Your task to perform on an android device: read, delete, or share a saved page in the chrome app Image 0: 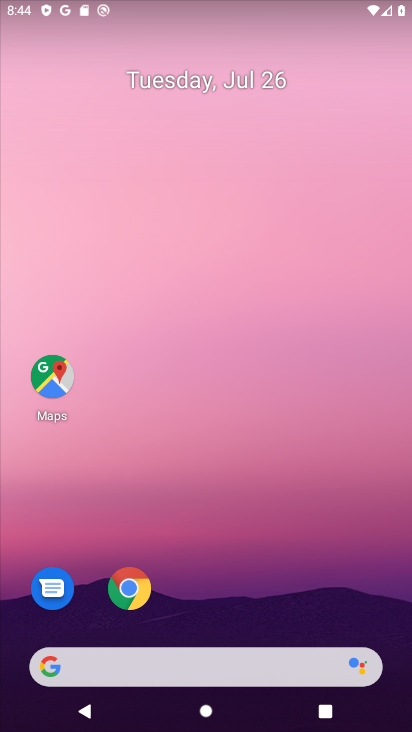
Step 0: click (127, 580)
Your task to perform on an android device: read, delete, or share a saved page in the chrome app Image 1: 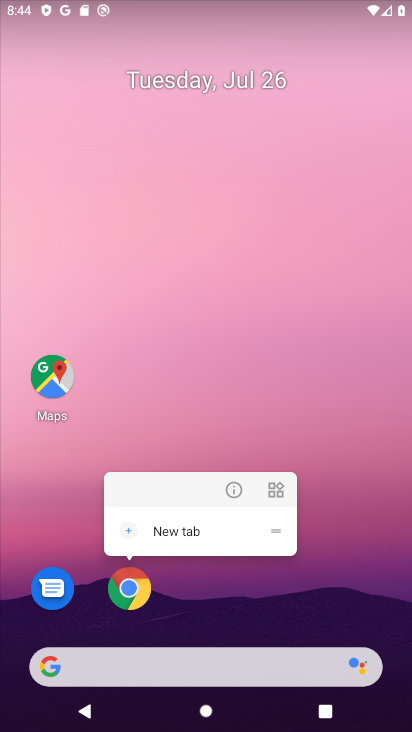
Step 1: click (183, 591)
Your task to perform on an android device: read, delete, or share a saved page in the chrome app Image 2: 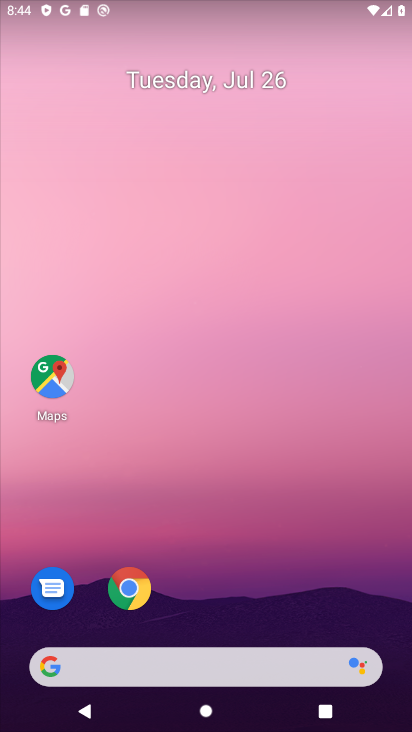
Step 2: click (132, 583)
Your task to perform on an android device: read, delete, or share a saved page in the chrome app Image 3: 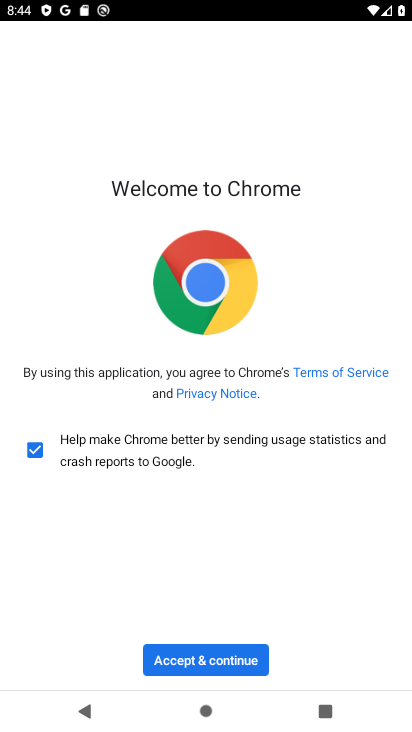
Step 3: click (197, 654)
Your task to perform on an android device: read, delete, or share a saved page in the chrome app Image 4: 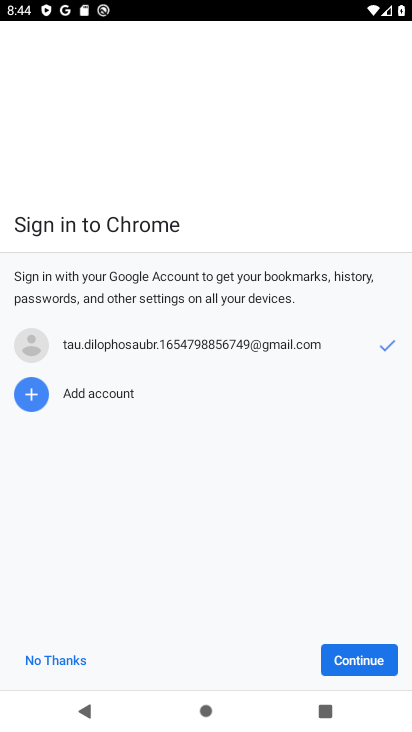
Step 4: click (364, 655)
Your task to perform on an android device: read, delete, or share a saved page in the chrome app Image 5: 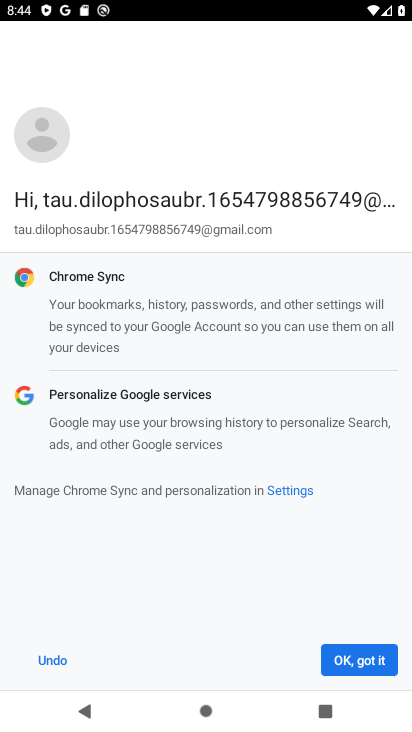
Step 5: click (353, 659)
Your task to perform on an android device: read, delete, or share a saved page in the chrome app Image 6: 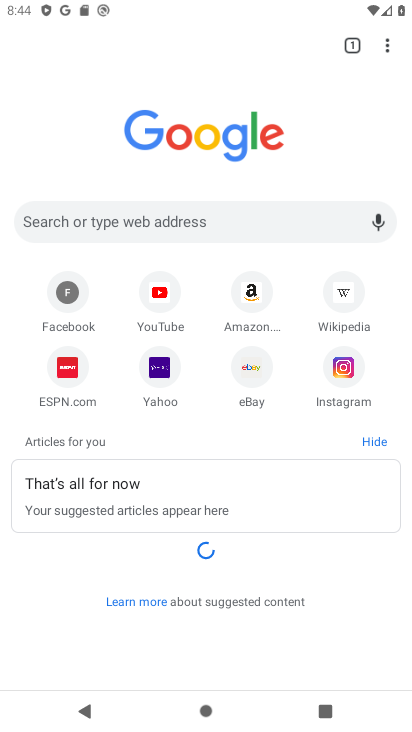
Step 6: click (386, 47)
Your task to perform on an android device: read, delete, or share a saved page in the chrome app Image 7: 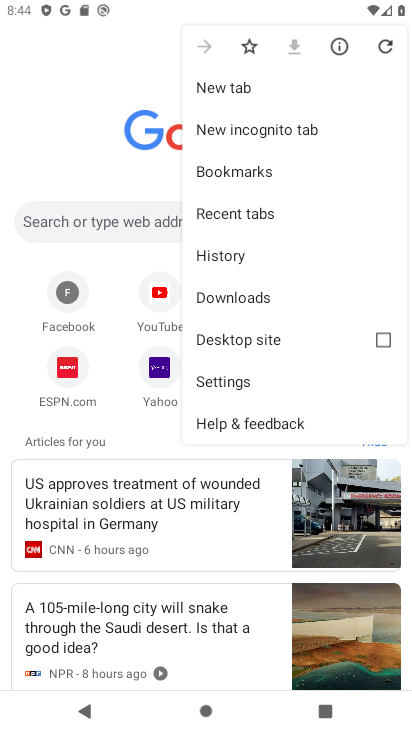
Step 7: click (273, 294)
Your task to perform on an android device: read, delete, or share a saved page in the chrome app Image 8: 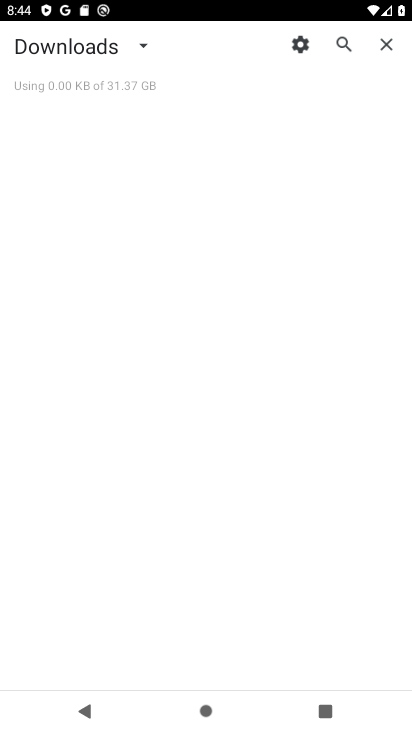
Step 8: task complete